Your task to perform on an android device: Open the stopwatch Image 0: 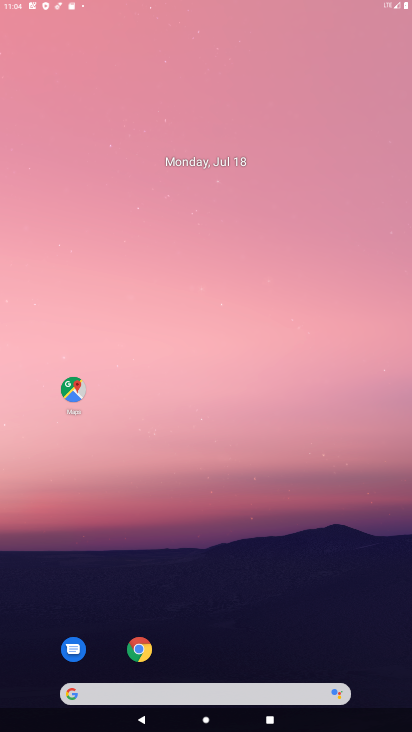
Step 0: drag from (181, 630) to (298, 66)
Your task to perform on an android device: Open the stopwatch Image 1: 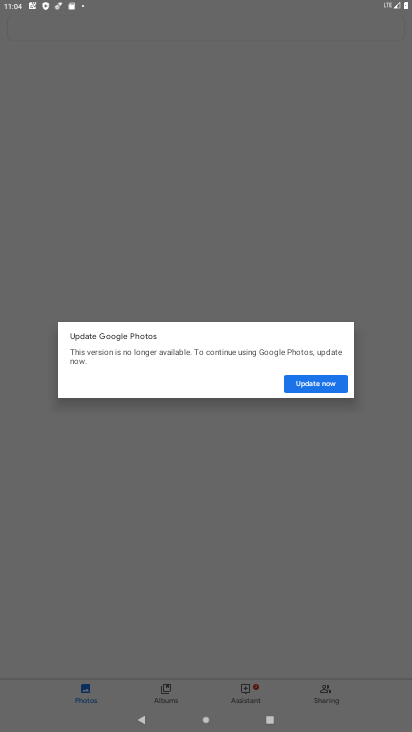
Step 1: press home button
Your task to perform on an android device: Open the stopwatch Image 2: 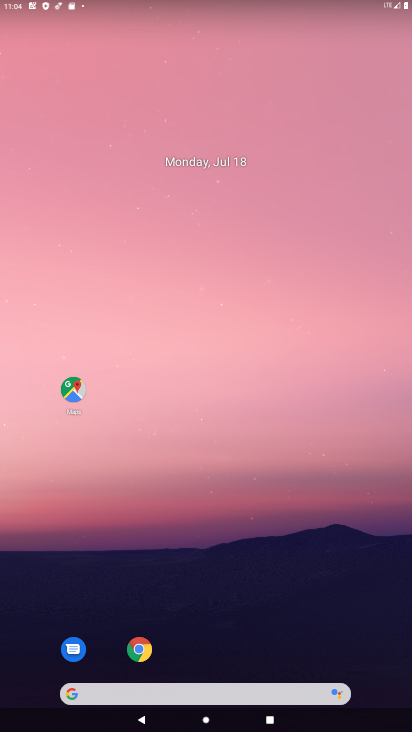
Step 2: drag from (233, 723) to (280, 34)
Your task to perform on an android device: Open the stopwatch Image 3: 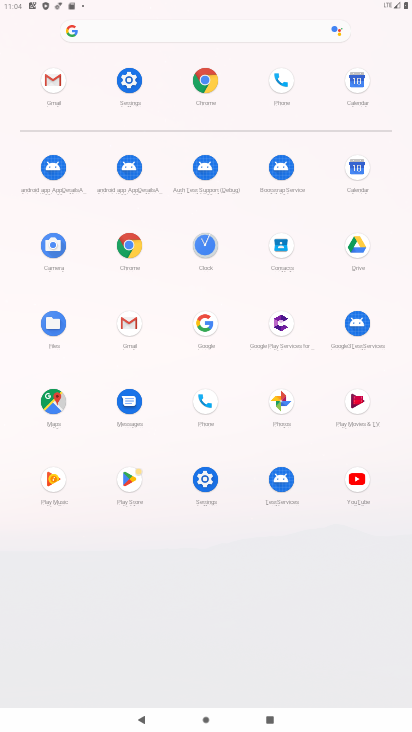
Step 3: click (200, 255)
Your task to perform on an android device: Open the stopwatch Image 4: 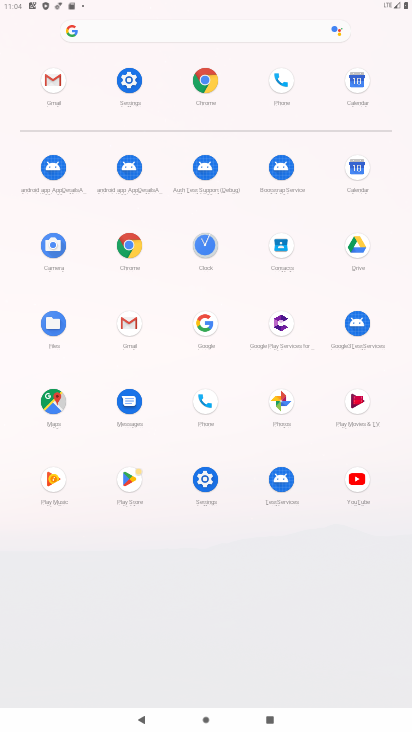
Step 4: click (200, 255)
Your task to perform on an android device: Open the stopwatch Image 5: 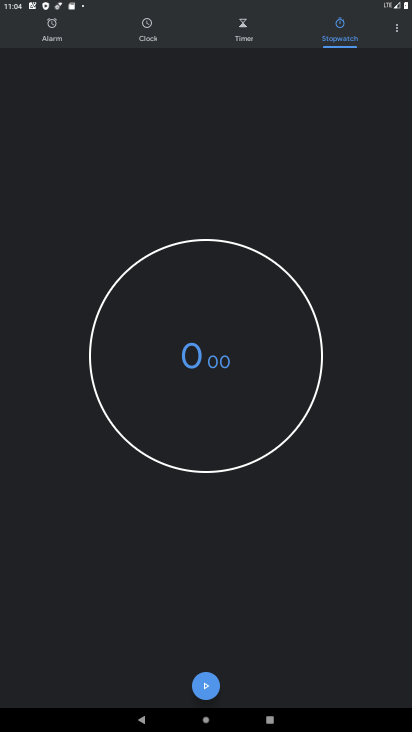
Step 5: task complete